Your task to perform on an android device: Open Chrome and go to settings Image 0: 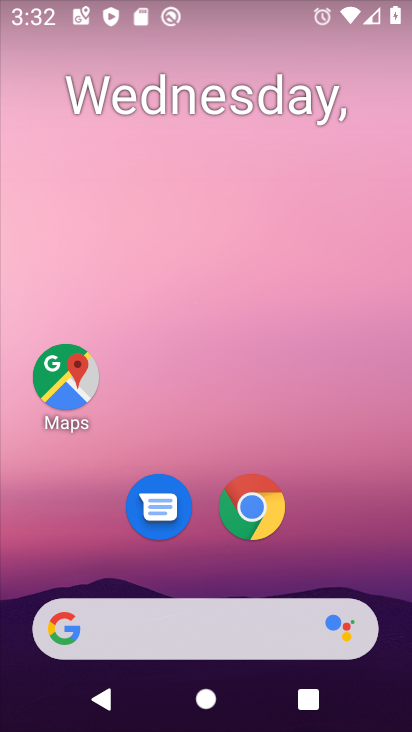
Step 0: drag from (343, 563) to (311, 11)
Your task to perform on an android device: Open Chrome and go to settings Image 1: 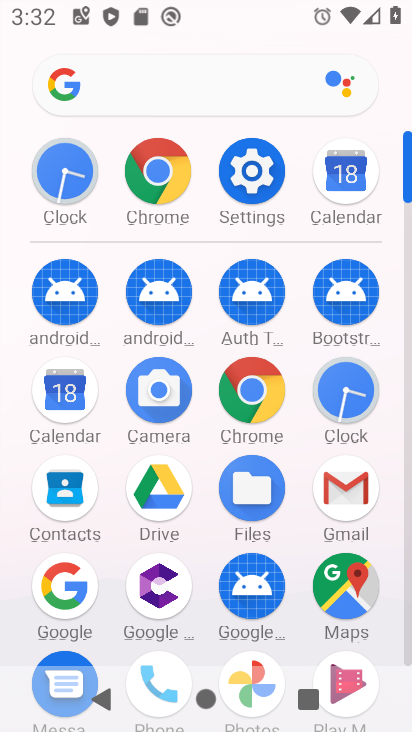
Step 1: click (171, 164)
Your task to perform on an android device: Open Chrome and go to settings Image 2: 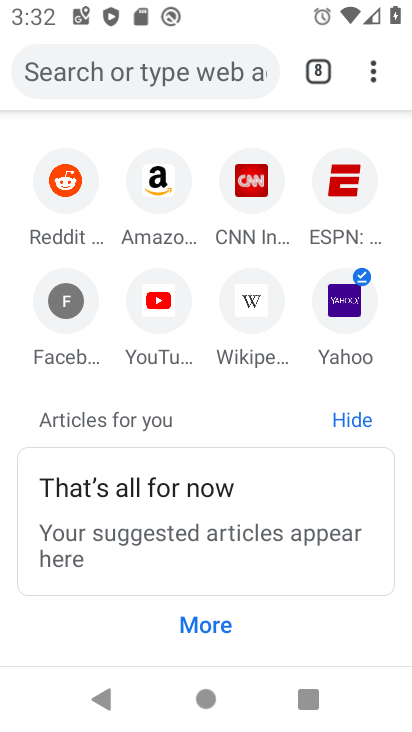
Step 2: click (374, 71)
Your task to perform on an android device: Open Chrome and go to settings Image 3: 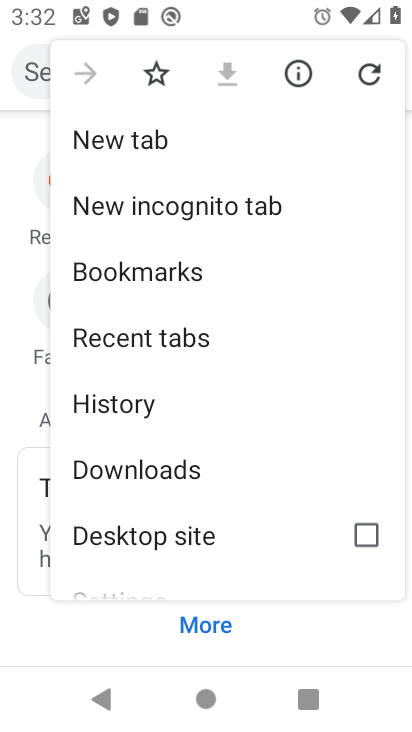
Step 3: drag from (312, 415) to (383, 21)
Your task to perform on an android device: Open Chrome and go to settings Image 4: 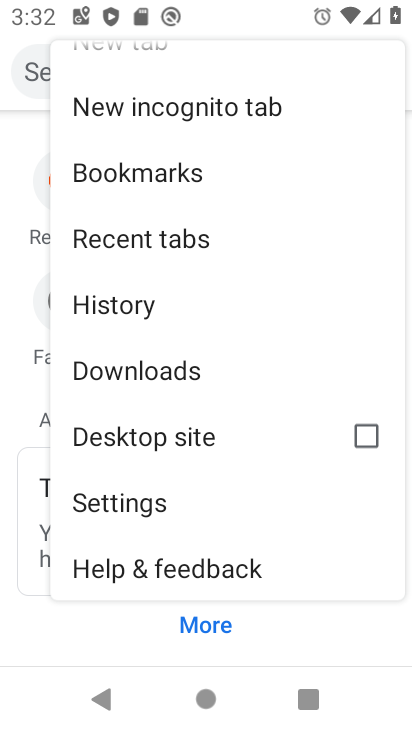
Step 4: click (130, 515)
Your task to perform on an android device: Open Chrome and go to settings Image 5: 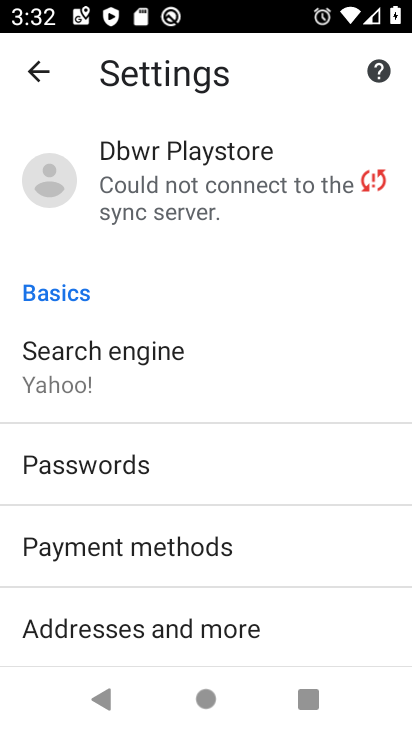
Step 5: task complete